Your task to perform on an android device: What's on my calendar today? Image 0: 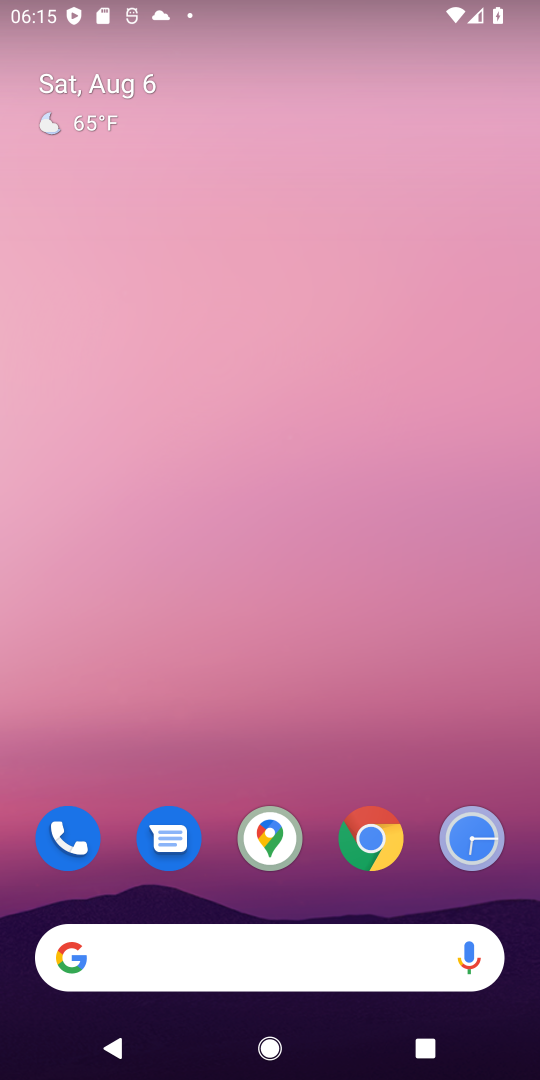
Step 0: drag from (307, 586) to (428, 11)
Your task to perform on an android device: What's on my calendar today? Image 1: 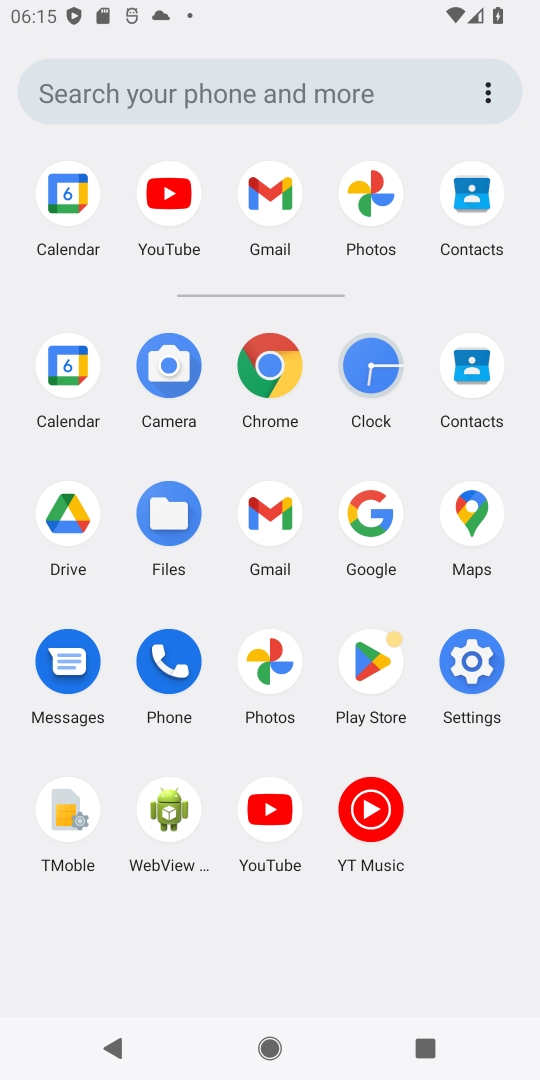
Step 1: click (70, 224)
Your task to perform on an android device: What's on my calendar today? Image 2: 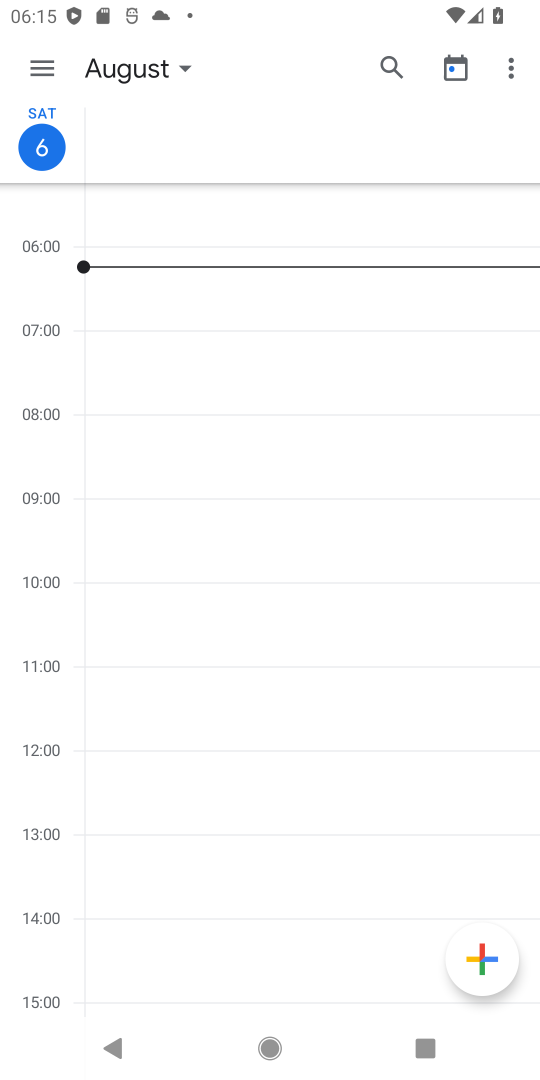
Step 2: click (39, 71)
Your task to perform on an android device: What's on my calendar today? Image 3: 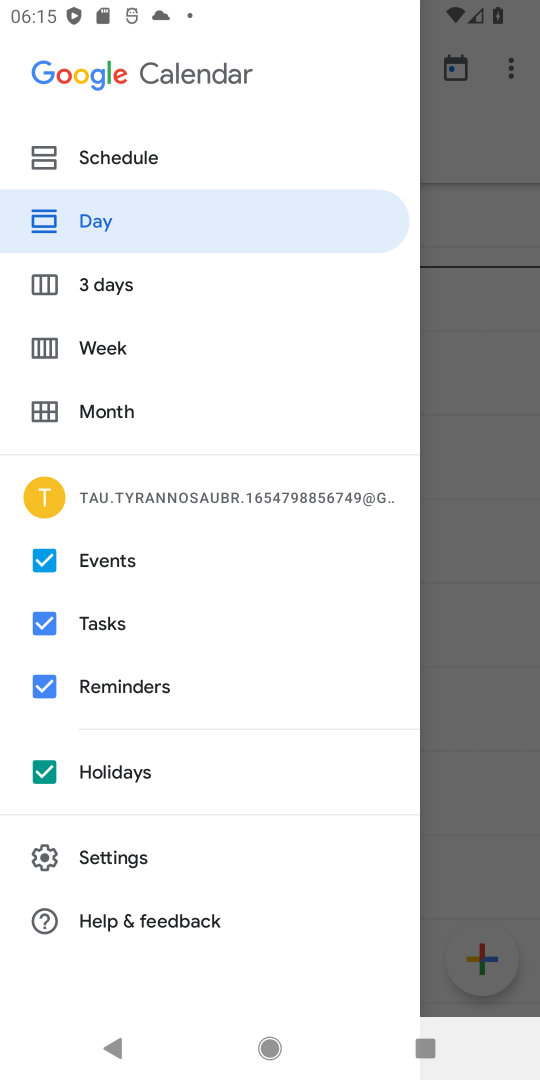
Step 3: click (460, 491)
Your task to perform on an android device: What's on my calendar today? Image 4: 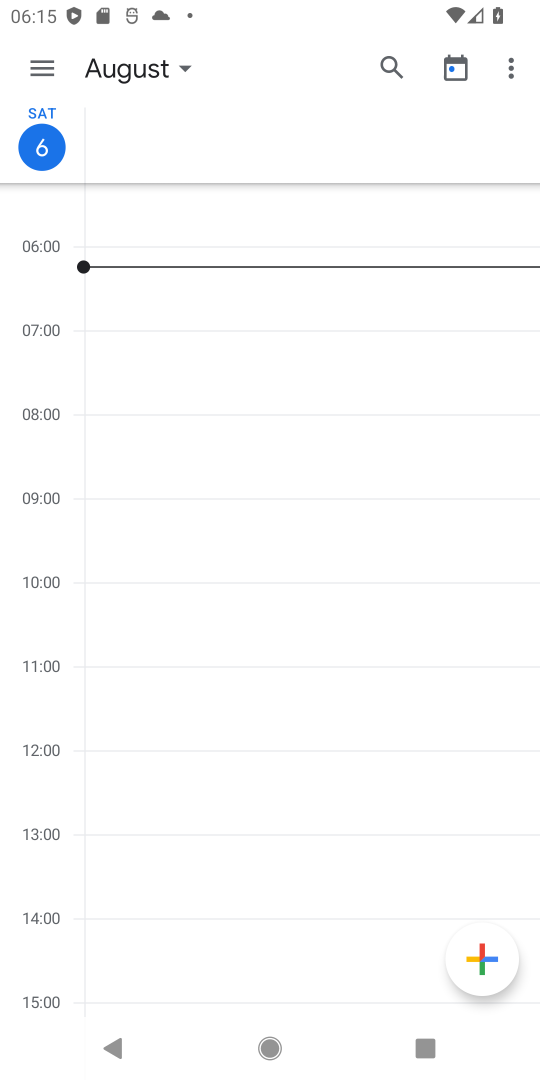
Step 4: task complete